Your task to perform on an android device: Open the phone app and click the voicemail tab. Image 0: 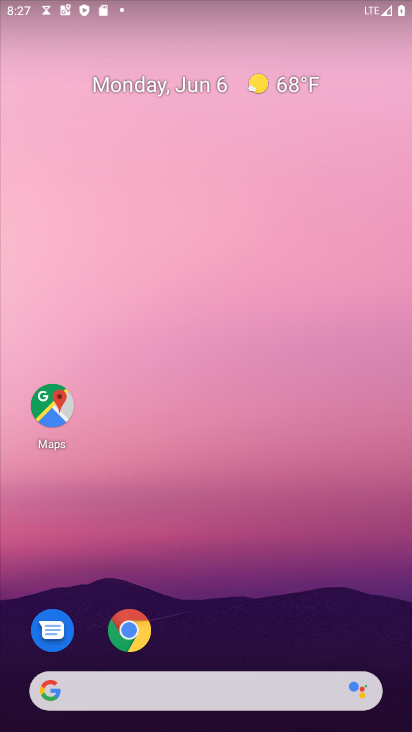
Step 0: drag from (265, 617) to (184, 21)
Your task to perform on an android device: Open the phone app and click the voicemail tab. Image 1: 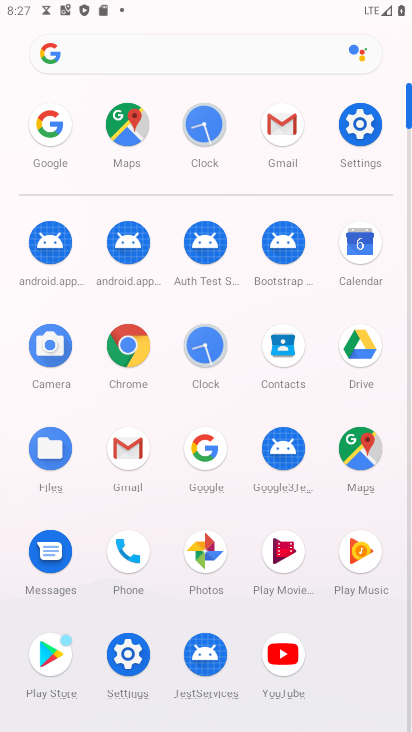
Step 1: click (126, 557)
Your task to perform on an android device: Open the phone app and click the voicemail tab. Image 2: 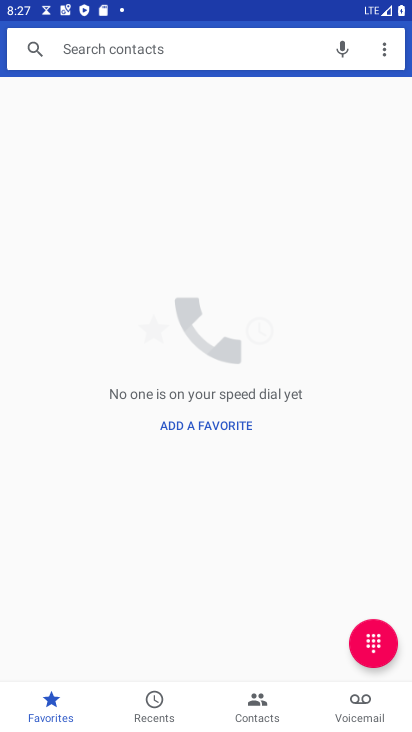
Step 2: click (358, 702)
Your task to perform on an android device: Open the phone app and click the voicemail tab. Image 3: 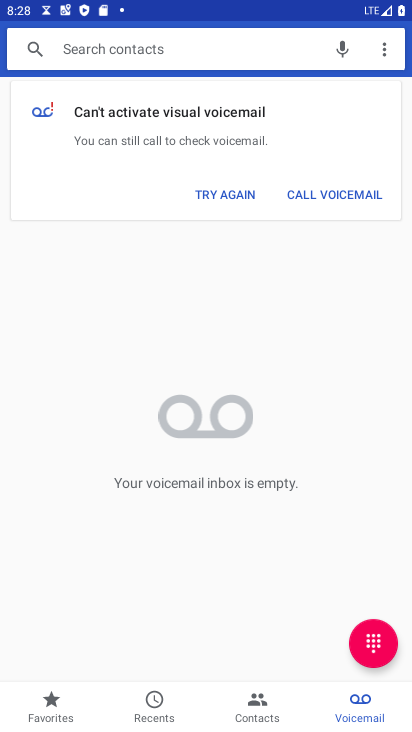
Step 3: task complete